Your task to perform on an android device: change alarm snooze length Image 0: 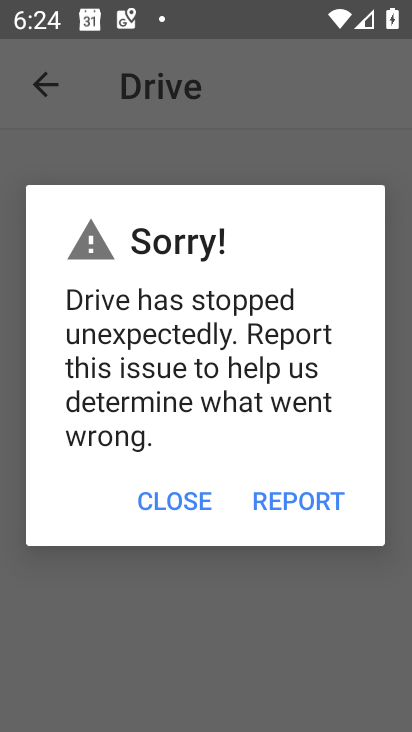
Step 0: press home button
Your task to perform on an android device: change alarm snooze length Image 1: 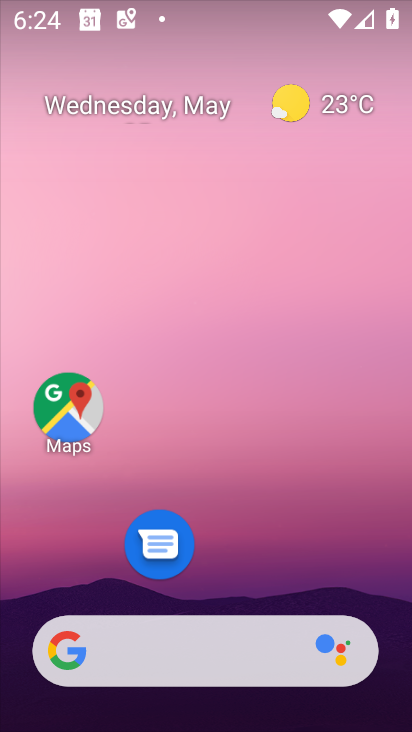
Step 1: drag from (325, 492) to (240, 105)
Your task to perform on an android device: change alarm snooze length Image 2: 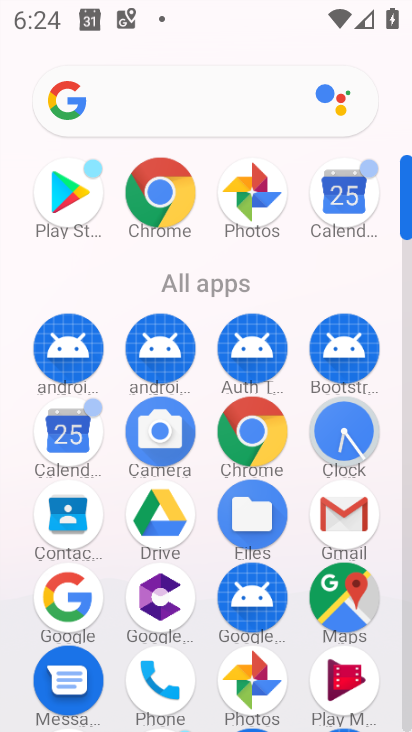
Step 2: click (341, 430)
Your task to perform on an android device: change alarm snooze length Image 3: 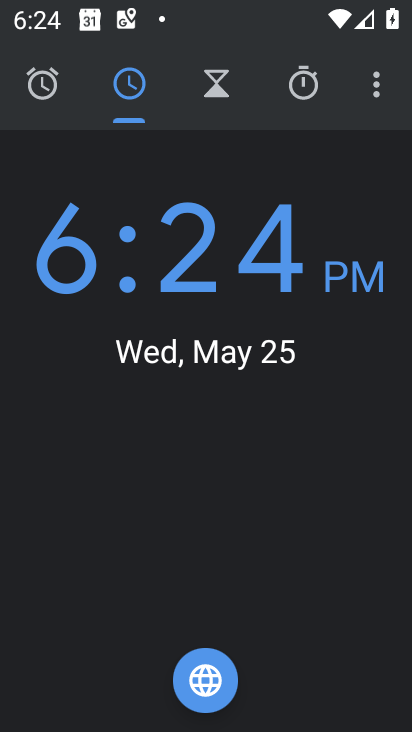
Step 3: click (377, 88)
Your task to perform on an android device: change alarm snooze length Image 4: 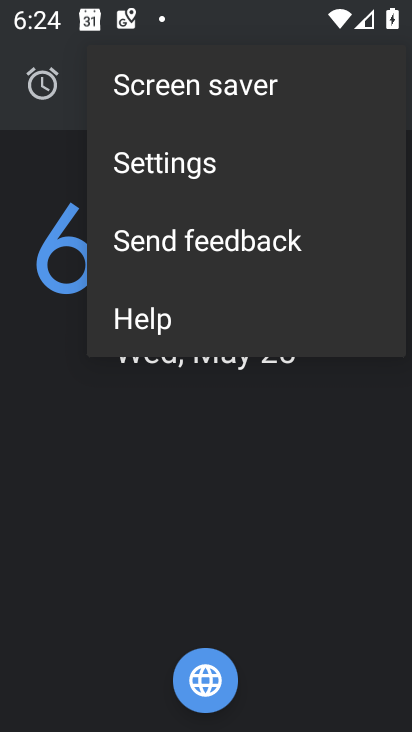
Step 4: click (197, 160)
Your task to perform on an android device: change alarm snooze length Image 5: 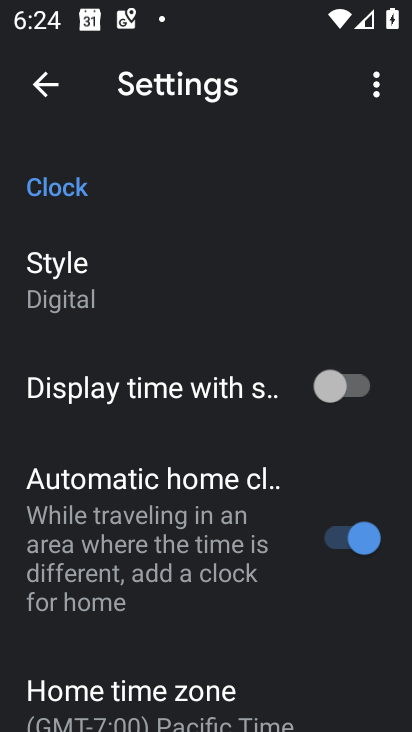
Step 5: drag from (219, 595) to (190, 234)
Your task to perform on an android device: change alarm snooze length Image 6: 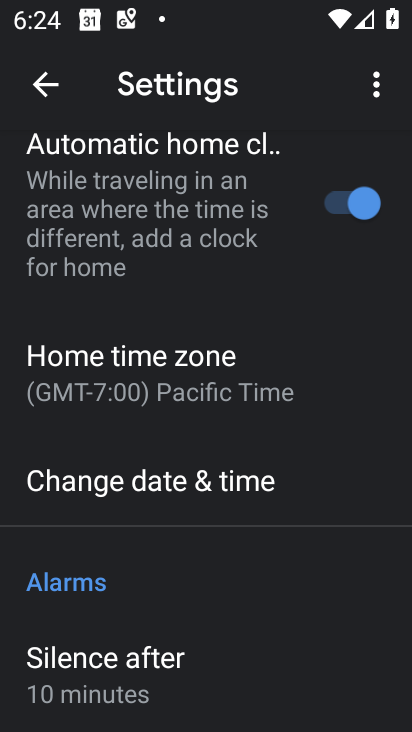
Step 6: drag from (187, 557) to (142, 213)
Your task to perform on an android device: change alarm snooze length Image 7: 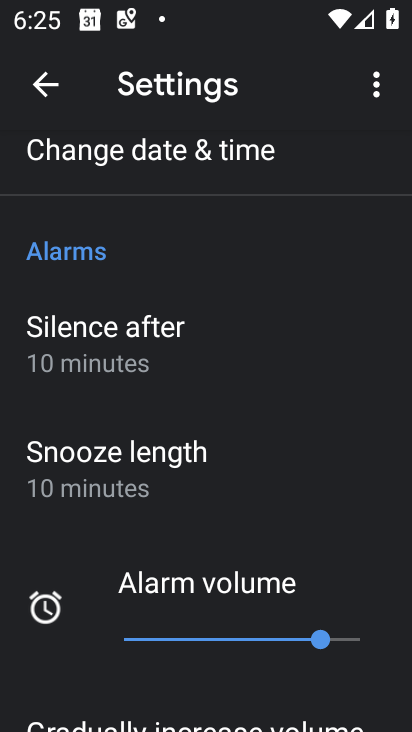
Step 7: click (140, 447)
Your task to perform on an android device: change alarm snooze length Image 8: 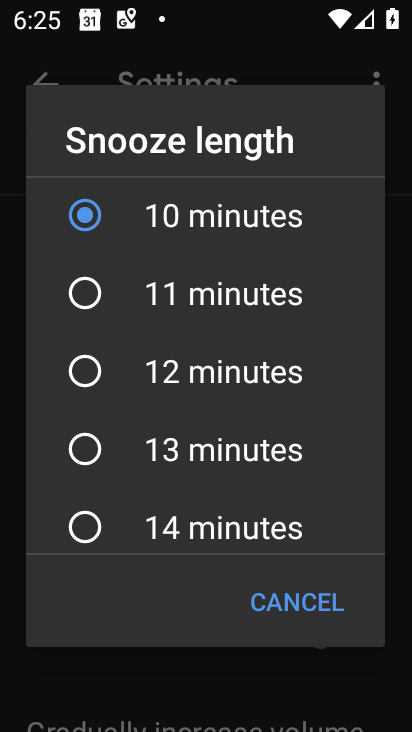
Step 8: click (90, 303)
Your task to perform on an android device: change alarm snooze length Image 9: 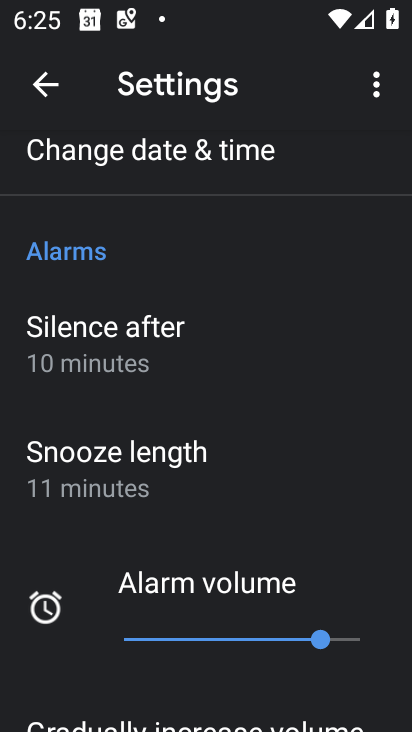
Step 9: task complete